Your task to perform on an android device: turn off data saver in the chrome app Image 0: 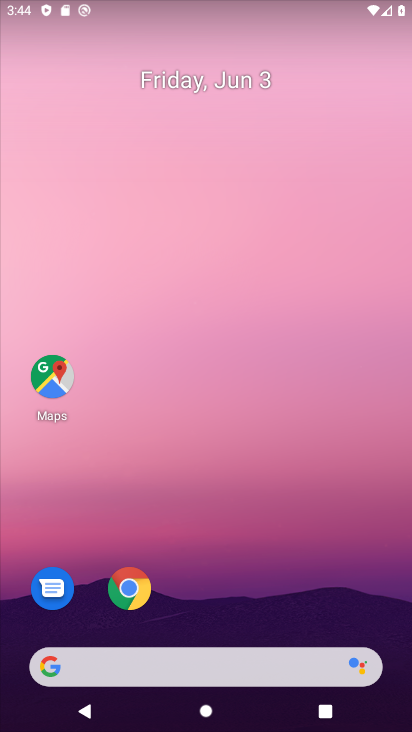
Step 0: drag from (252, 597) to (242, 113)
Your task to perform on an android device: turn off data saver in the chrome app Image 1: 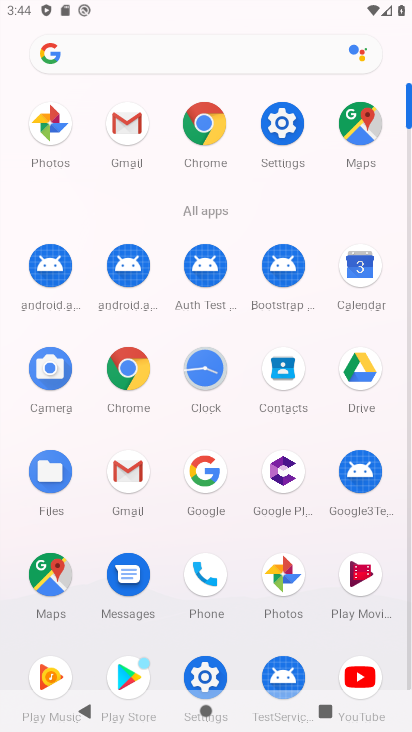
Step 1: click (209, 116)
Your task to perform on an android device: turn off data saver in the chrome app Image 2: 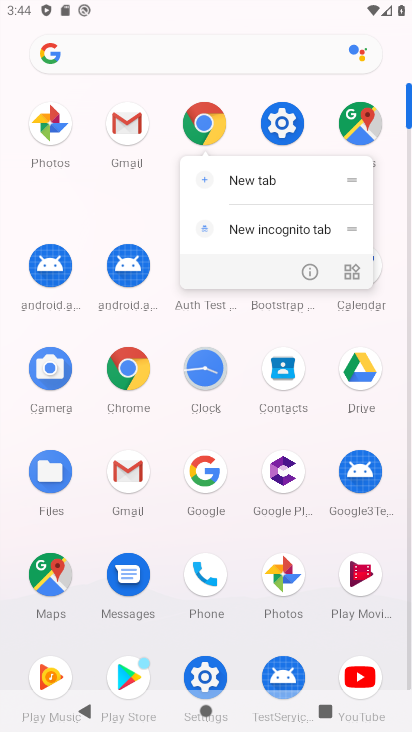
Step 2: click (209, 116)
Your task to perform on an android device: turn off data saver in the chrome app Image 3: 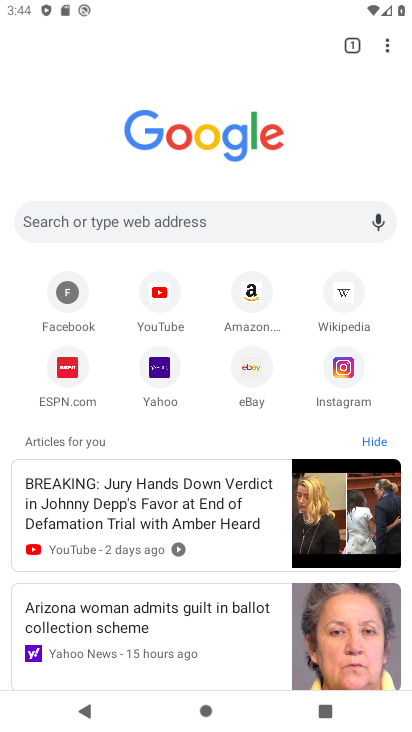
Step 3: click (389, 56)
Your task to perform on an android device: turn off data saver in the chrome app Image 4: 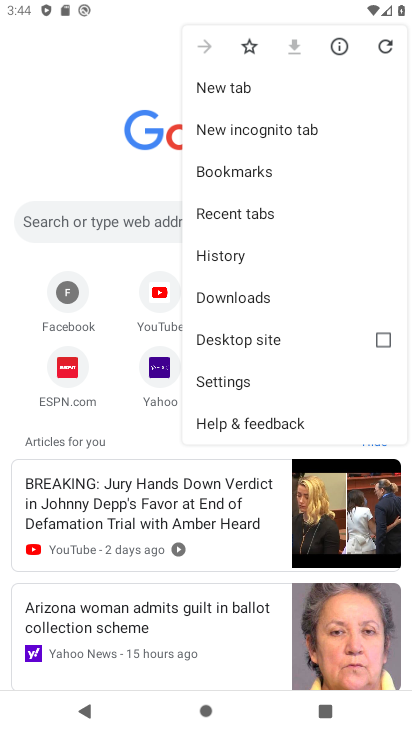
Step 4: click (262, 368)
Your task to perform on an android device: turn off data saver in the chrome app Image 5: 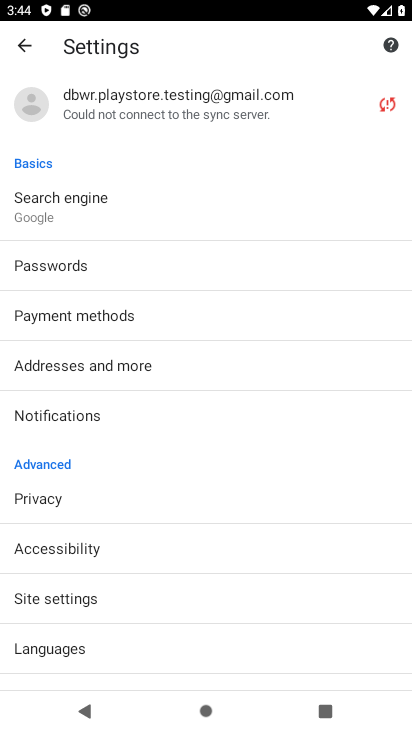
Step 5: drag from (130, 667) to (101, 452)
Your task to perform on an android device: turn off data saver in the chrome app Image 6: 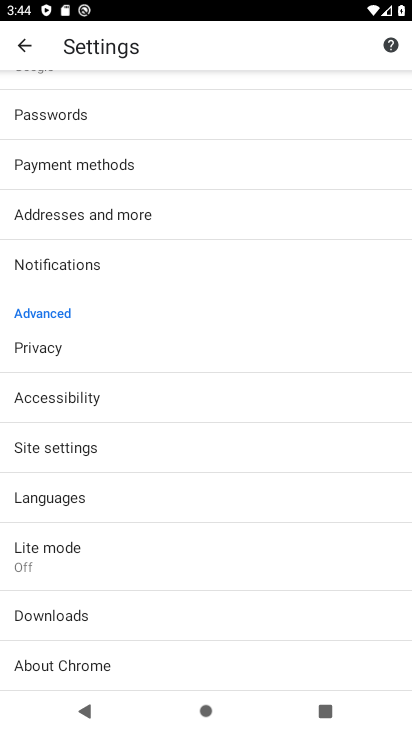
Step 6: click (110, 559)
Your task to perform on an android device: turn off data saver in the chrome app Image 7: 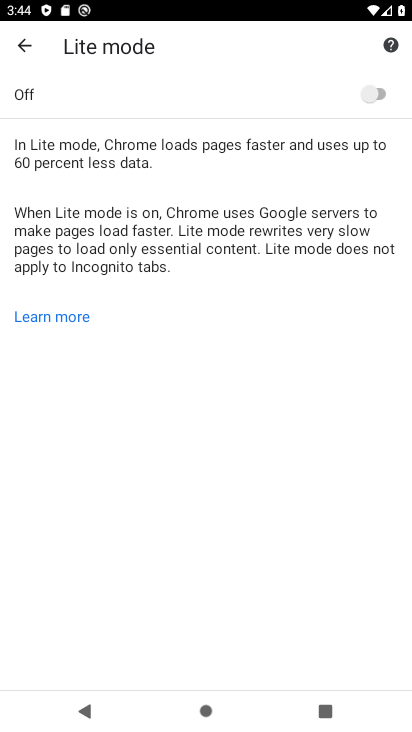
Step 7: task complete